Your task to perform on an android device: Open my contact list Image 0: 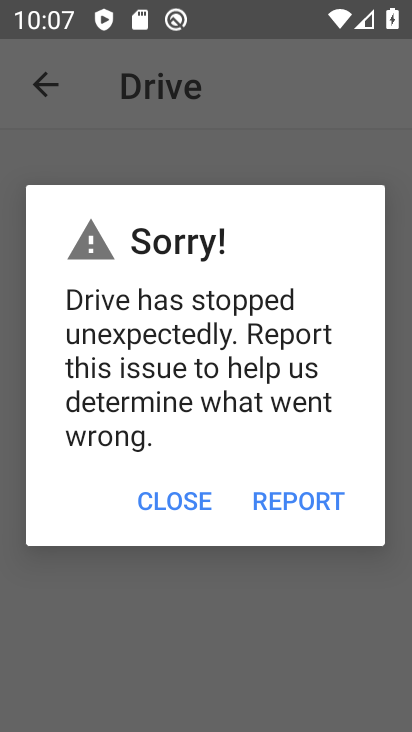
Step 0: press home button
Your task to perform on an android device: Open my contact list Image 1: 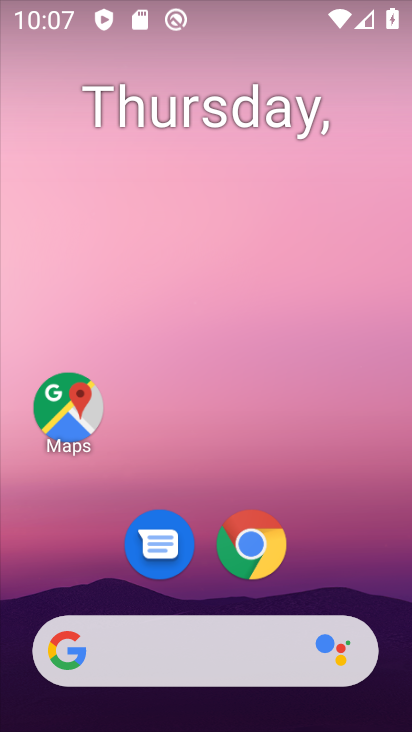
Step 1: drag from (205, 596) to (228, 21)
Your task to perform on an android device: Open my contact list Image 2: 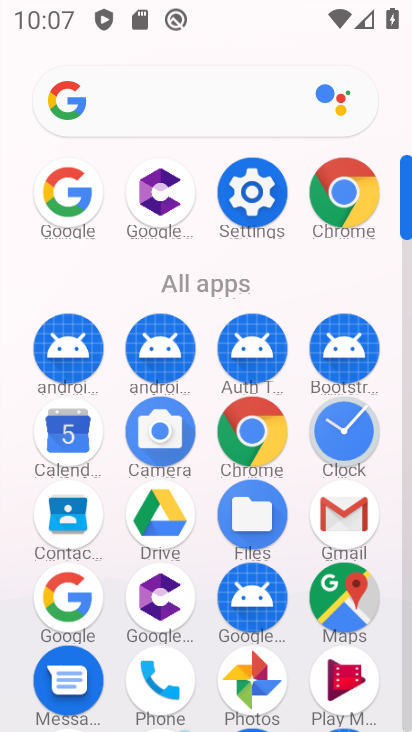
Step 2: click (65, 508)
Your task to perform on an android device: Open my contact list Image 3: 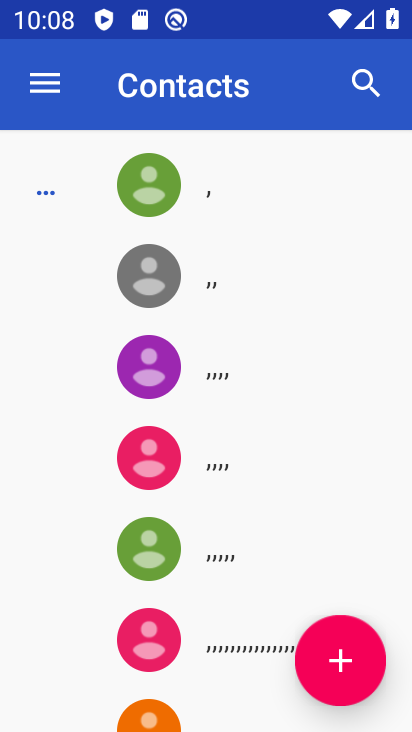
Step 3: drag from (187, 579) to (217, 102)
Your task to perform on an android device: Open my contact list Image 4: 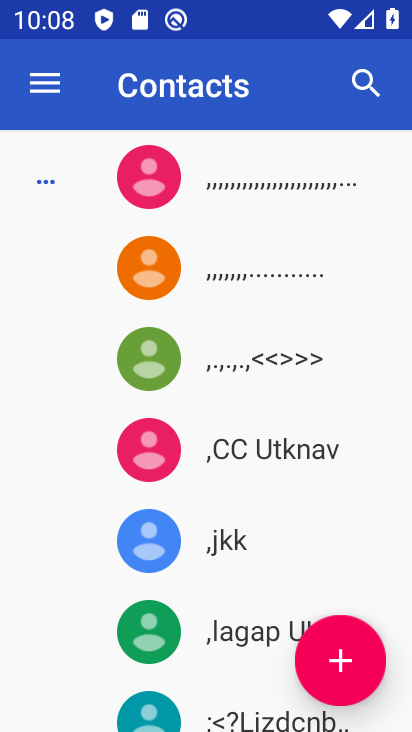
Step 4: click (201, 171)
Your task to perform on an android device: Open my contact list Image 5: 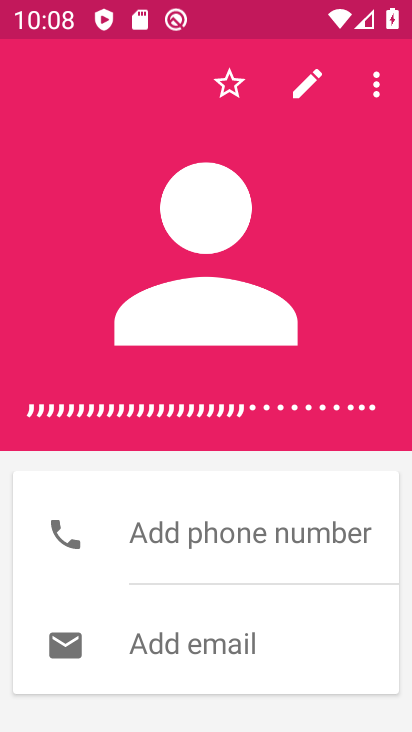
Step 5: task complete